Your task to perform on an android device: find snoozed emails in the gmail app Image 0: 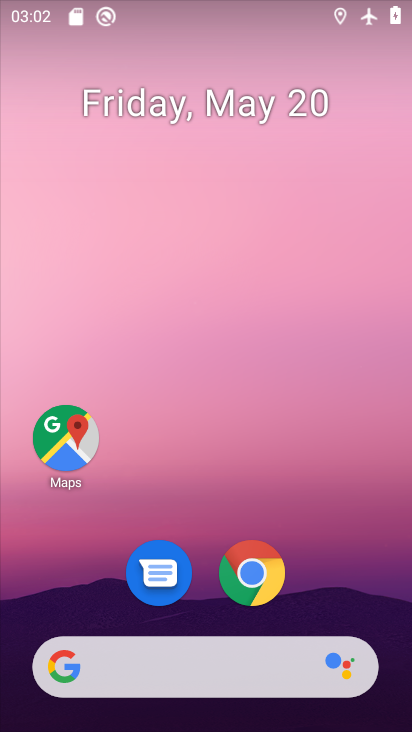
Step 0: drag from (191, 611) to (172, 288)
Your task to perform on an android device: find snoozed emails in the gmail app Image 1: 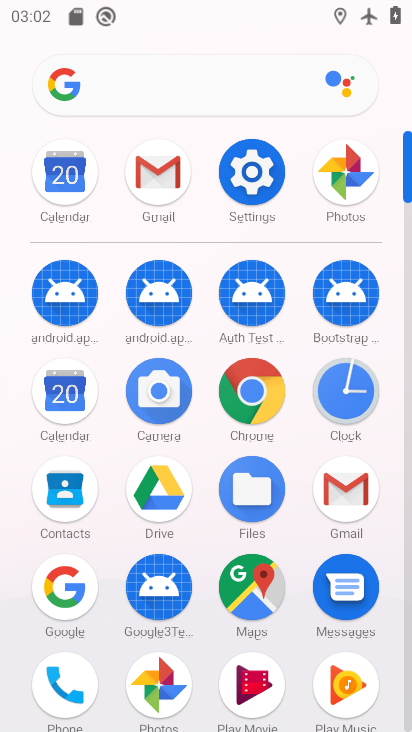
Step 1: click (336, 477)
Your task to perform on an android device: find snoozed emails in the gmail app Image 2: 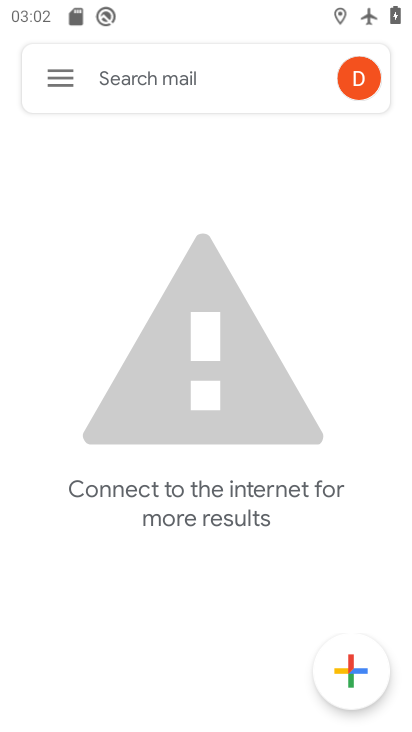
Step 2: click (59, 91)
Your task to perform on an android device: find snoozed emails in the gmail app Image 3: 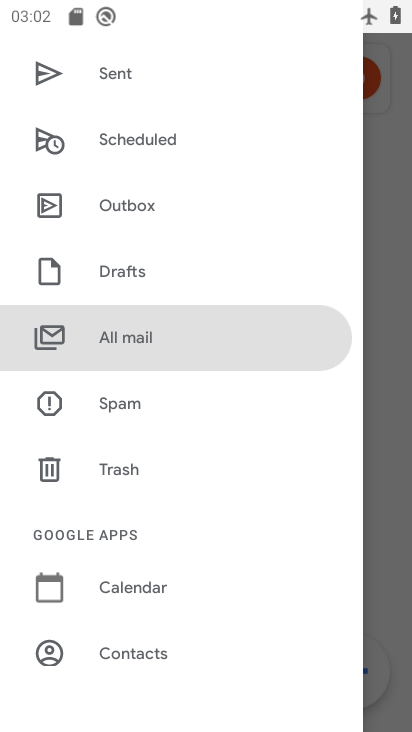
Step 3: drag from (155, 152) to (196, 445)
Your task to perform on an android device: find snoozed emails in the gmail app Image 4: 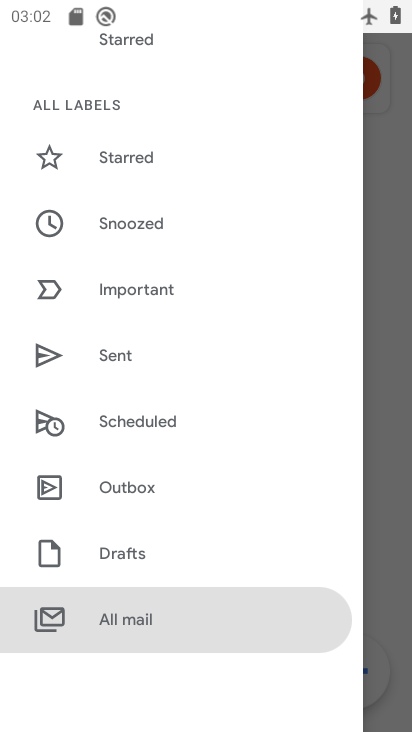
Step 4: click (153, 205)
Your task to perform on an android device: find snoozed emails in the gmail app Image 5: 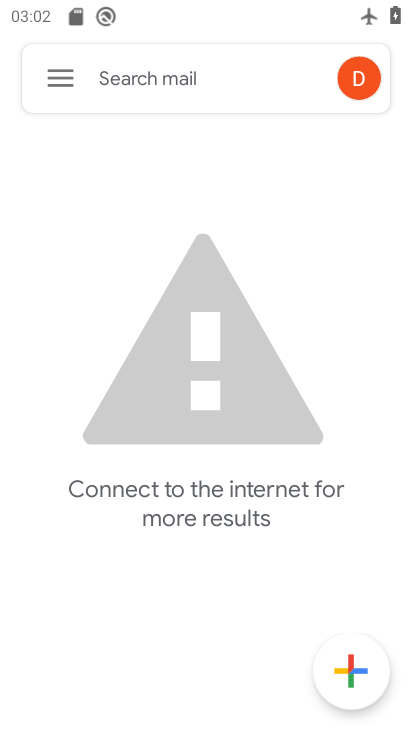
Step 5: task complete